Your task to perform on an android device: check battery use Image 0: 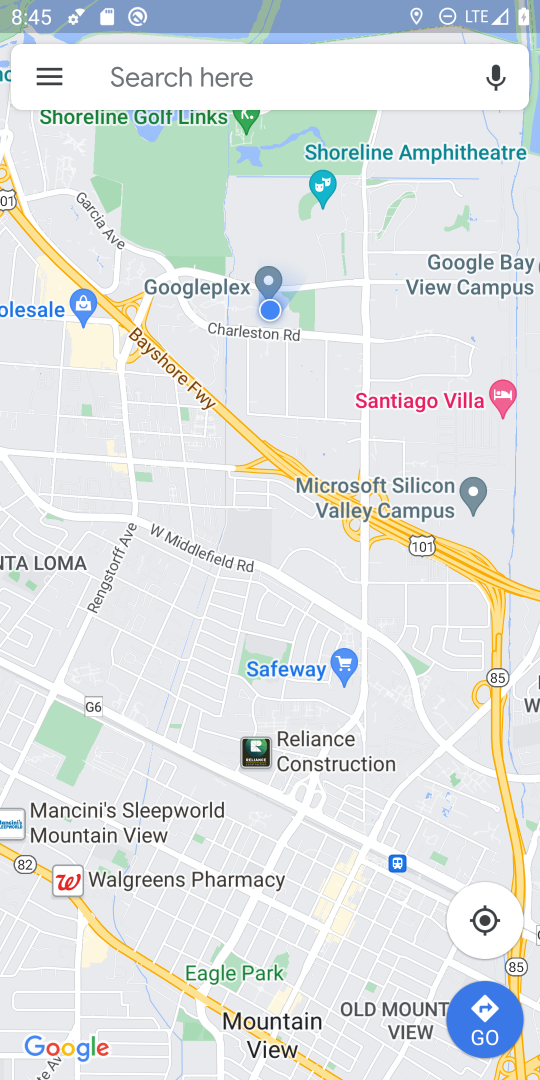
Step 0: press home button
Your task to perform on an android device: check battery use Image 1: 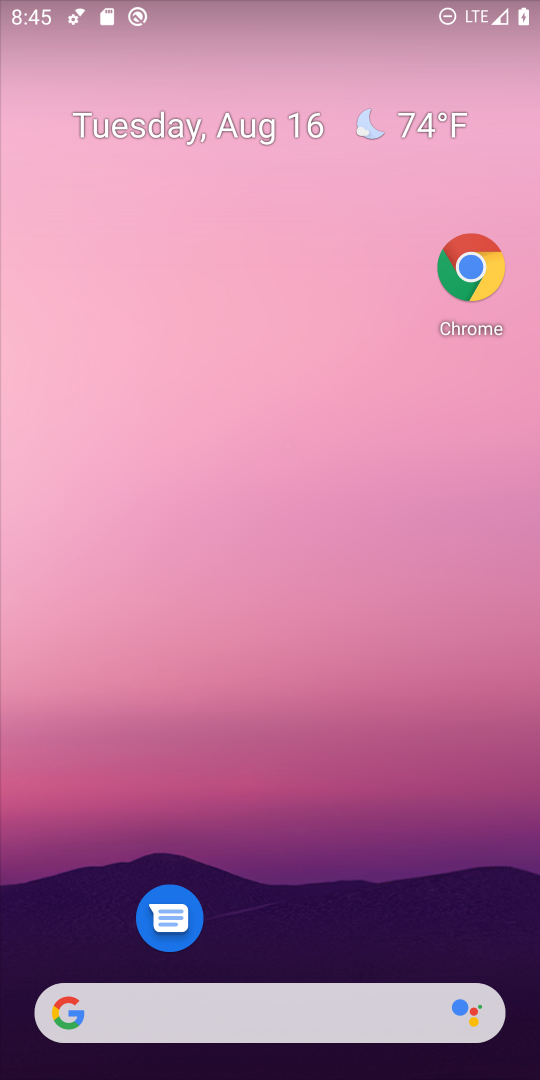
Step 1: drag from (361, 817) to (464, 0)
Your task to perform on an android device: check battery use Image 2: 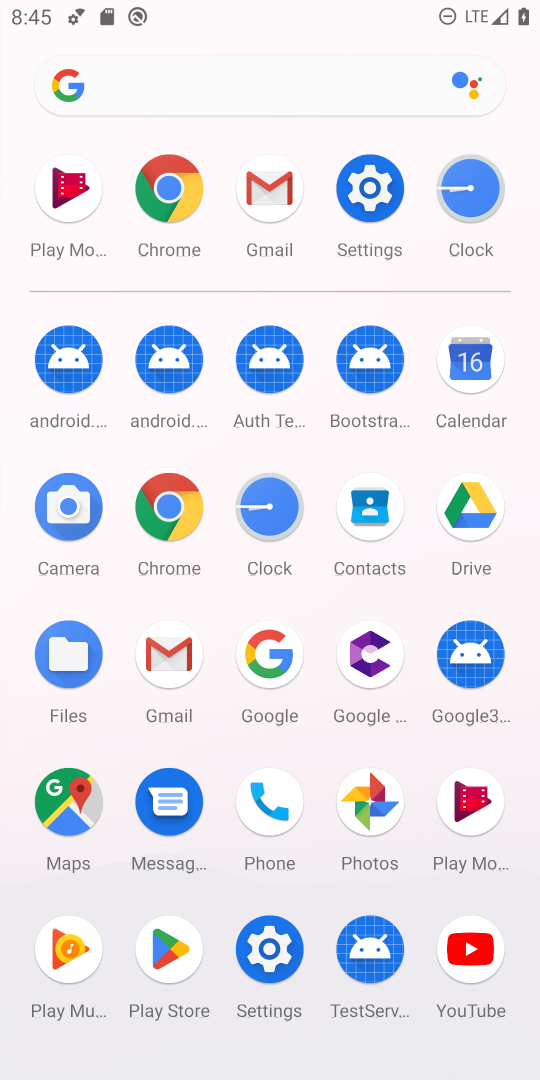
Step 2: click (376, 203)
Your task to perform on an android device: check battery use Image 3: 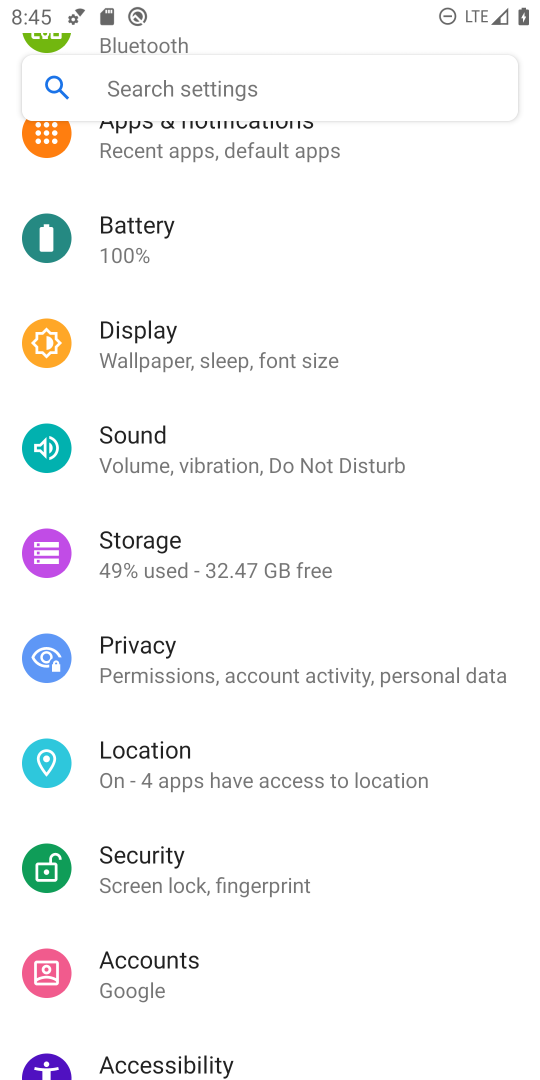
Step 3: click (193, 250)
Your task to perform on an android device: check battery use Image 4: 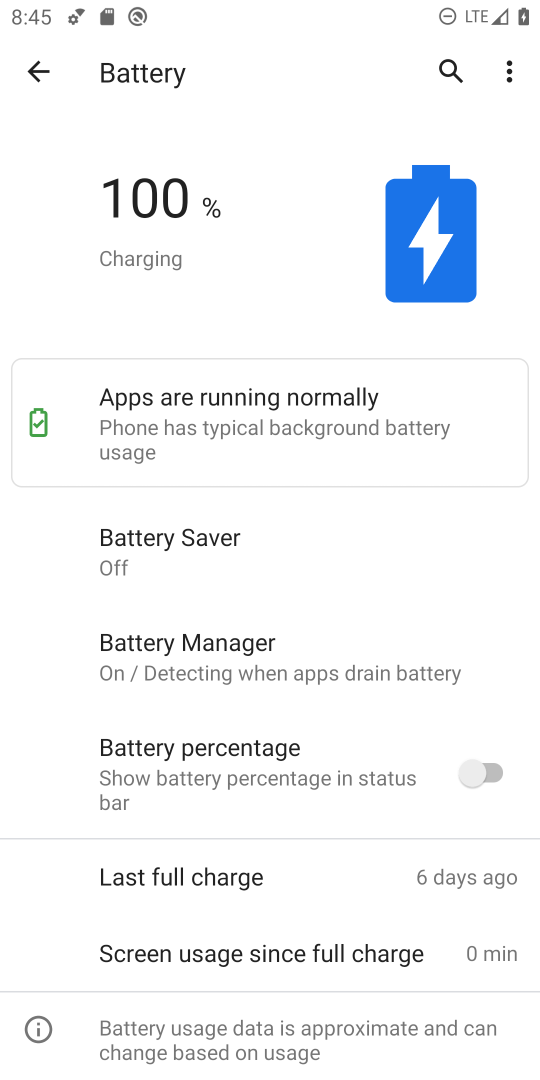
Step 4: click (185, 867)
Your task to perform on an android device: check battery use Image 5: 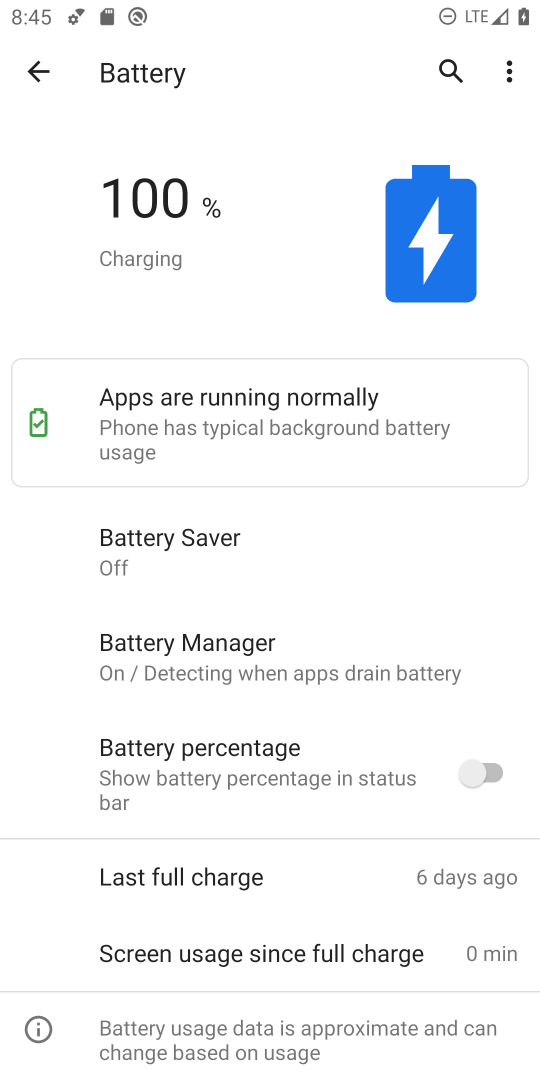
Step 5: task complete